Your task to perform on an android device: check the backup settings in the google photos Image 0: 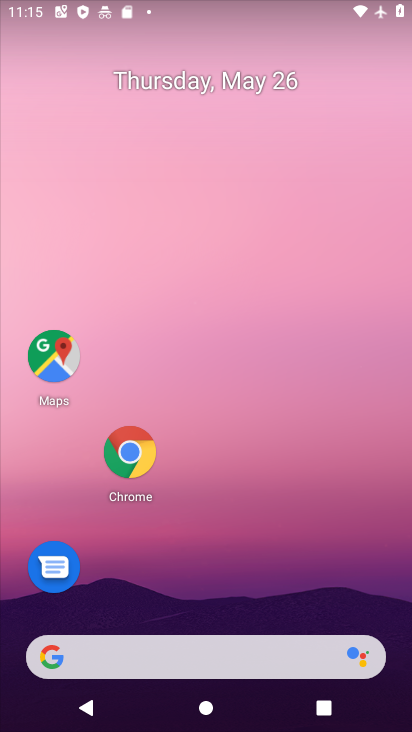
Step 0: press home button
Your task to perform on an android device: check the backup settings in the google photos Image 1: 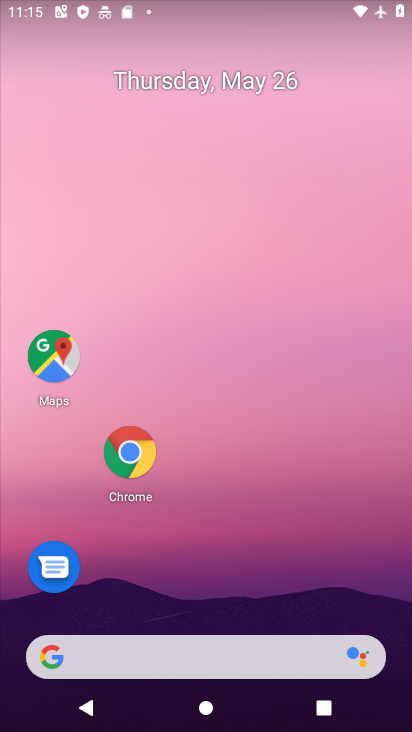
Step 1: drag from (158, 656) to (286, 353)
Your task to perform on an android device: check the backup settings in the google photos Image 2: 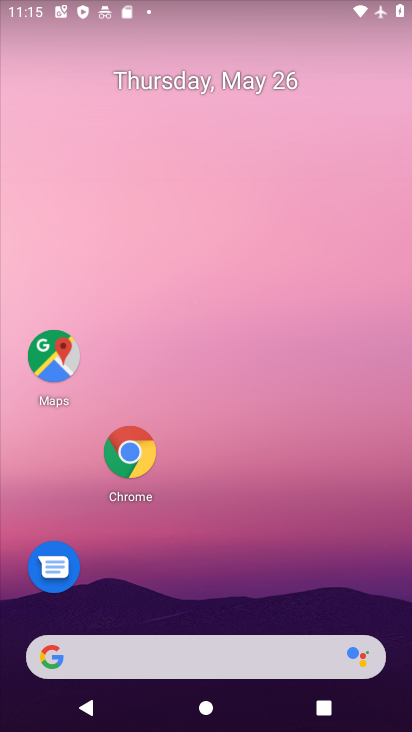
Step 2: drag from (182, 655) to (261, 271)
Your task to perform on an android device: check the backup settings in the google photos Image 3: 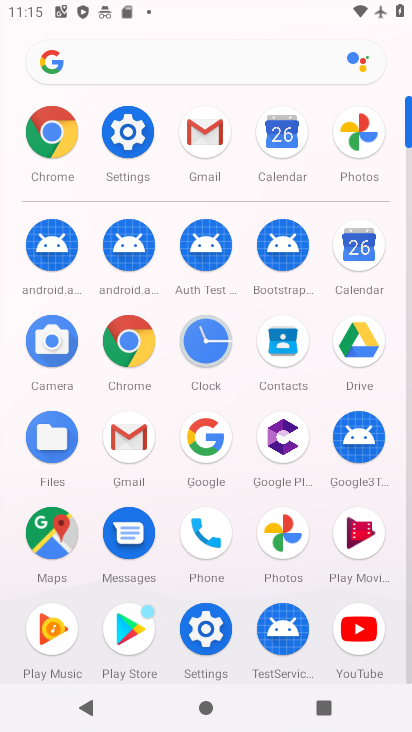
Step 3: click (283, 542)
Your task to perform on an android device: check the backup settings in the google photos Image 4: 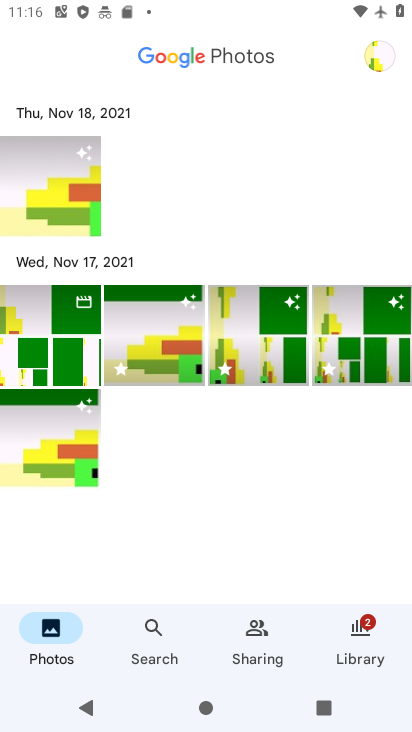
Step 4: click (372, 57)
Your task to perform on an android device: check the backup settings in the google photos Image 5: 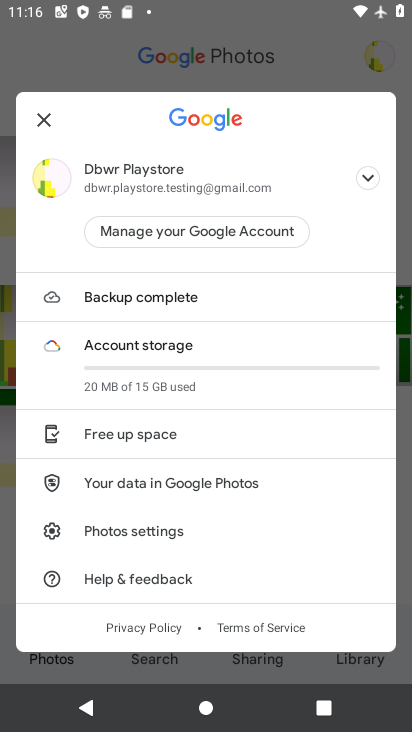
Step 5: click (180, 530)
Your task to perform on an android device: check the backup settings in the google photos Image 6: 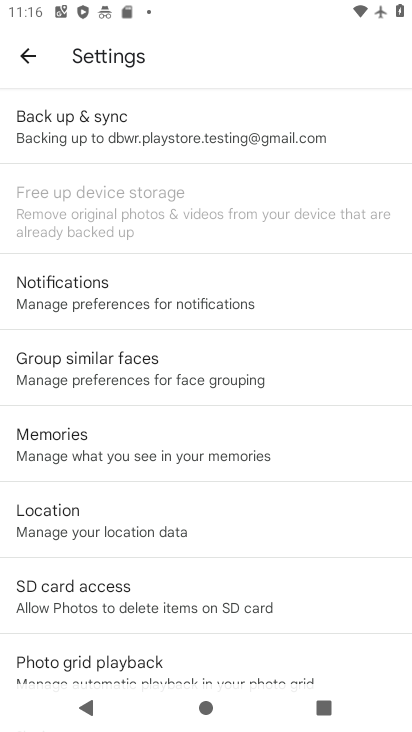
Step 6: click (126, 134)
Your task to perform on an android device: check the backup settings in the google photos Image 7: 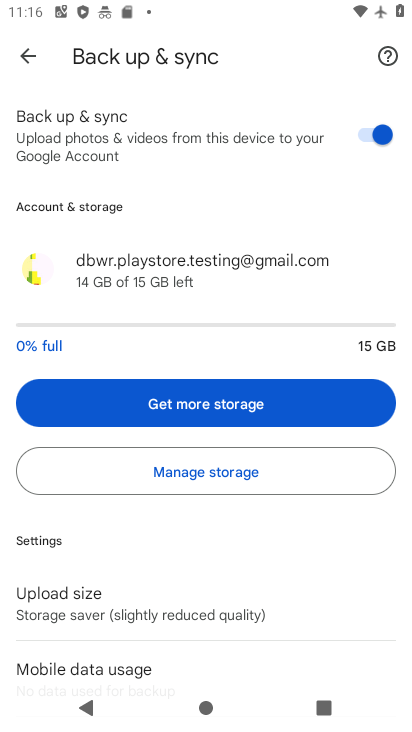
Step 7: task complete